Your task to perform on an android device: Go to CNN.com Image 0: 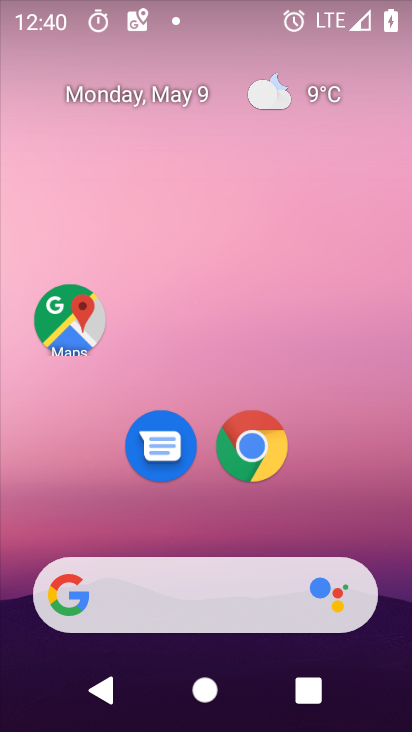
Step 0: click (254, 445)
Your task to perform on an android device: Go to CNN.com Image 1: 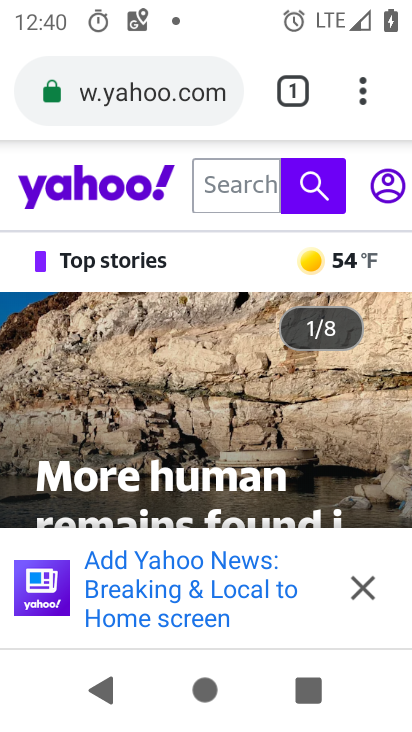
Step 1: click (91, 91)
Your task to perform on an android device: Go to CNN.com Image 2: 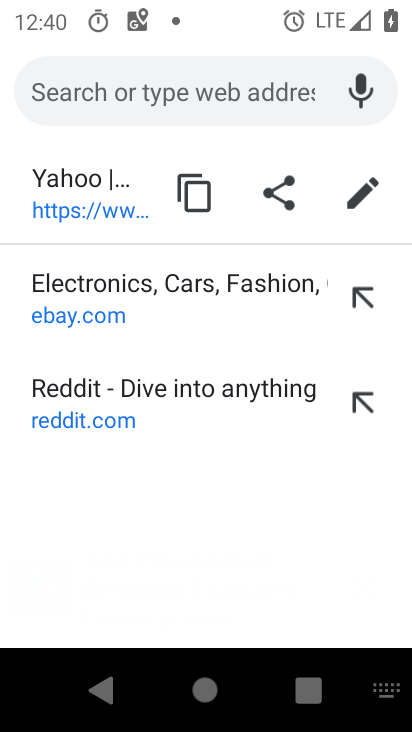
Step 2: type "cnn.com"
Your task to perform on an android device: Go to CNN.com Image 3: 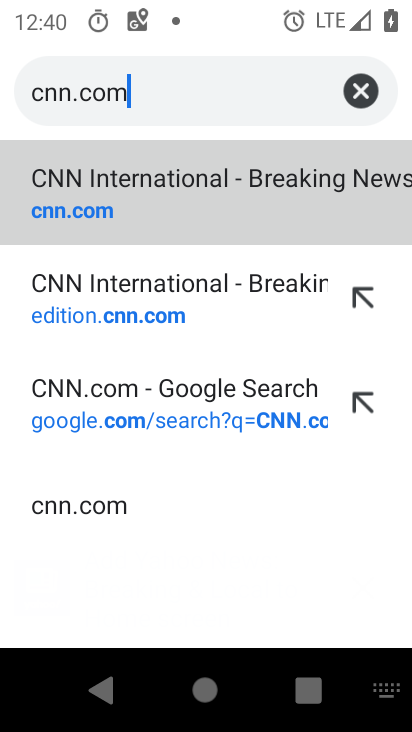
Step 3: click (64, 505)
Your task to perform on an android device: Go to CNN.com Image 4: 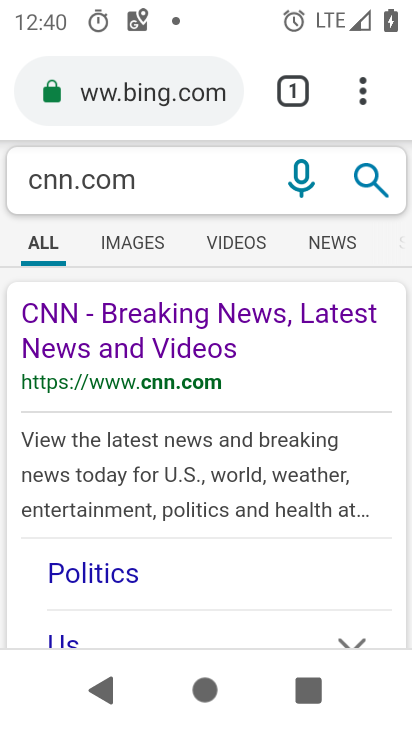
Step 4: click (72, 391)
Your task to perform on an android device: Go to CNN.com Image 5: 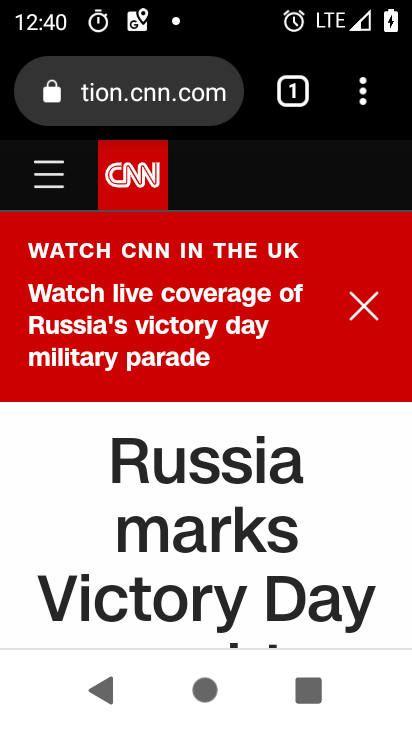
Step 5: task complete